Your task to perform on an android device: change the clock display to show seconds Image 0: 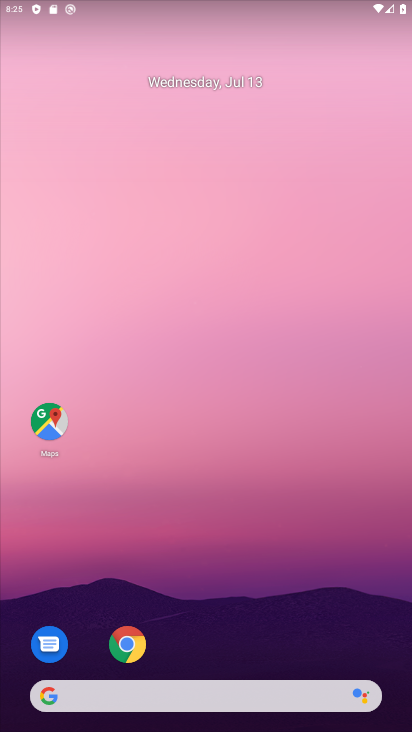
Step 0: click (395, 572)
Your task to perform on an android device: change the clock display to show seconds Image 1: 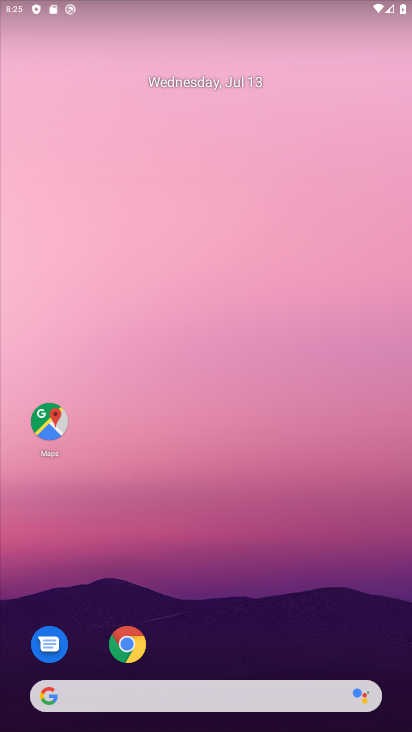
Step 1: drag from (219, 719) to (155, 6)
Your task to perform on an android device: change the clock display to show seconds Image 2: 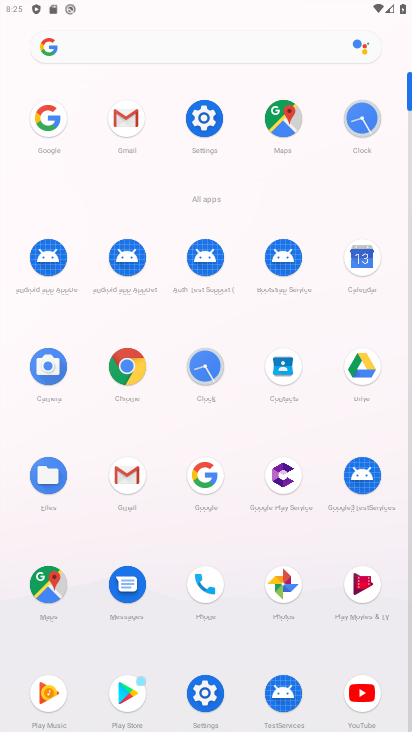
Step 2: click (203, 369)
Your task to perform on an android device: change the clock display to show seconds Image 3: 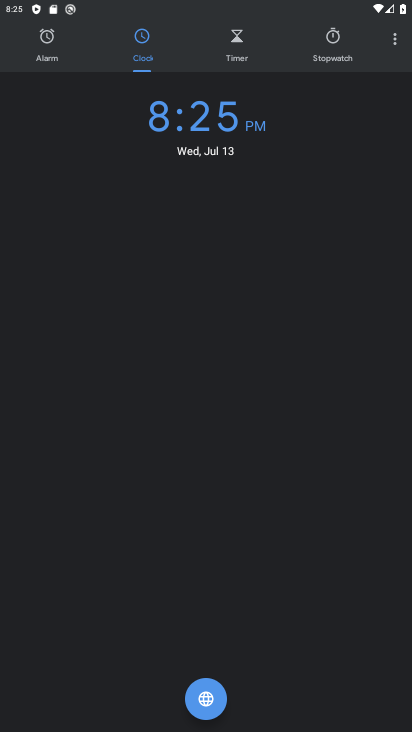
Step 3: click (398, 49)
Your task to perform on an android device: change the clock display to show seconds Image 4: 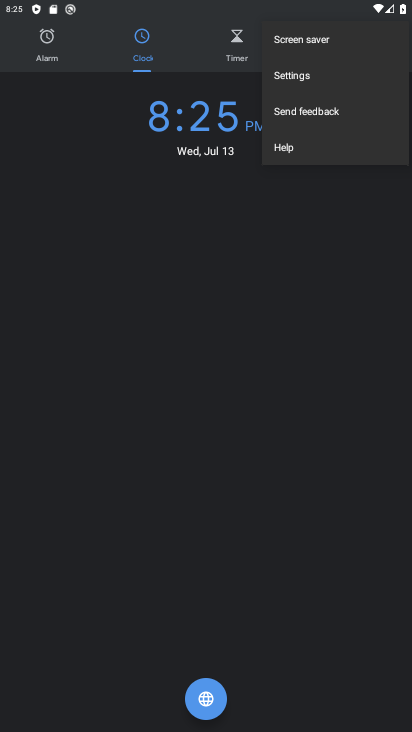
Step 4: click (300, 73)
Your task to perform on an android device: change the clock display to show seconds Image 5: 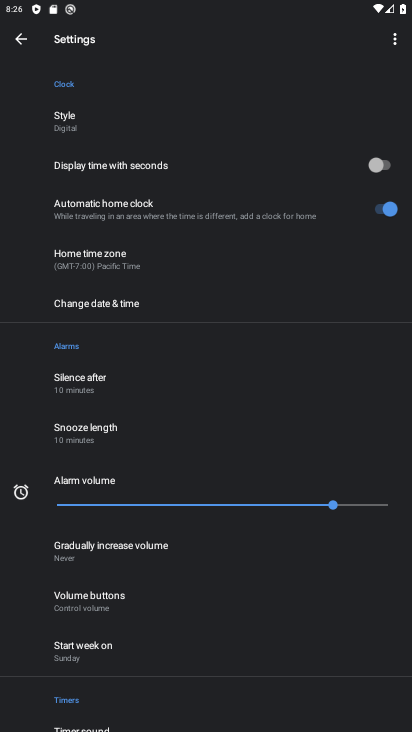
Step 5: click (381, 164)
Your task to perform on an android device: change the clock display to show seconds Image 6: 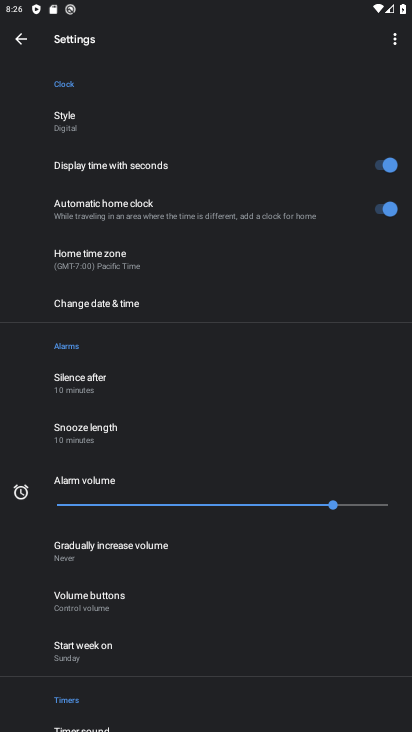
Step 6: task complete